Your task to perform on an android device: How much does a3 bedroom apartment rent for in Portland? Image 0: 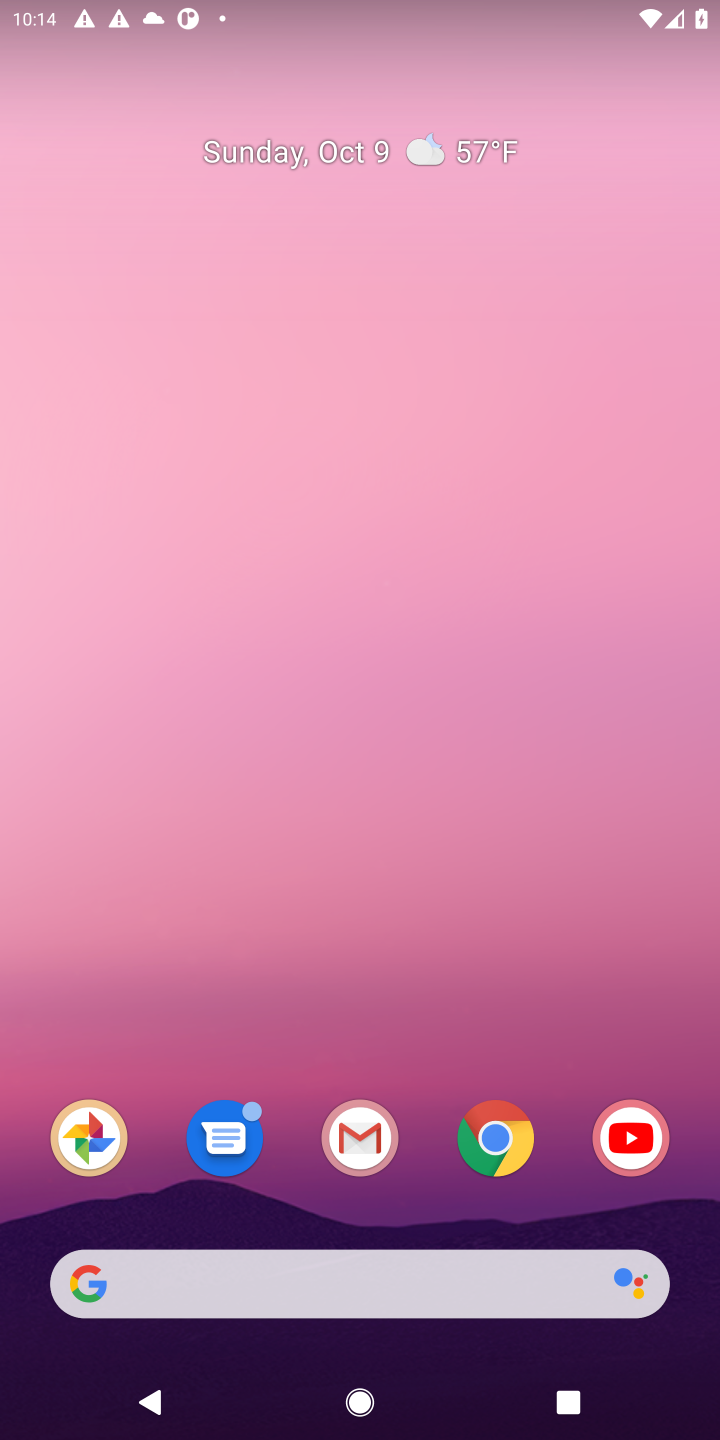
Step 0: task complete